Your task to perform on an android device: open chrome and create a bookmark for the current page Image 0: 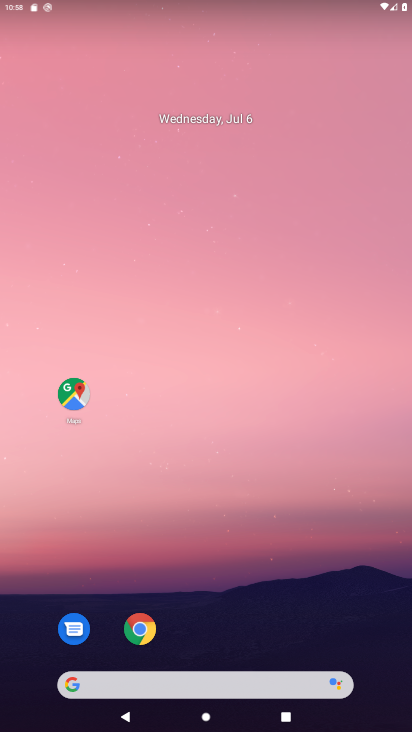
Step 0: click (138, 620)
Your task to perform on an android device: open chrome and create a bookmark for the current page Image 1: 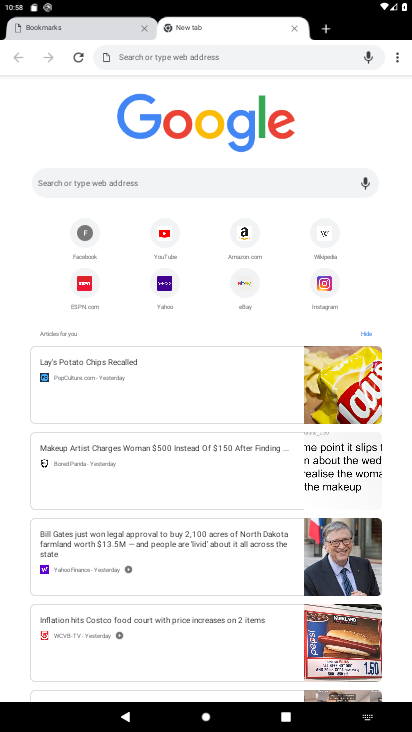
Step 1: click (397, 57)
Your task to perform on an android device: open chrome and create a bookmark for the current page Image 2: 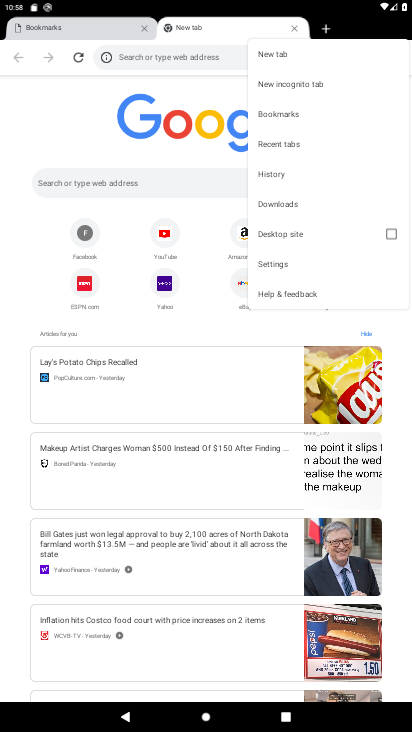
Step 2: click (44, 97)
Your task to perform on an android device: open chrome and create a bookmark for the current page Image 3: 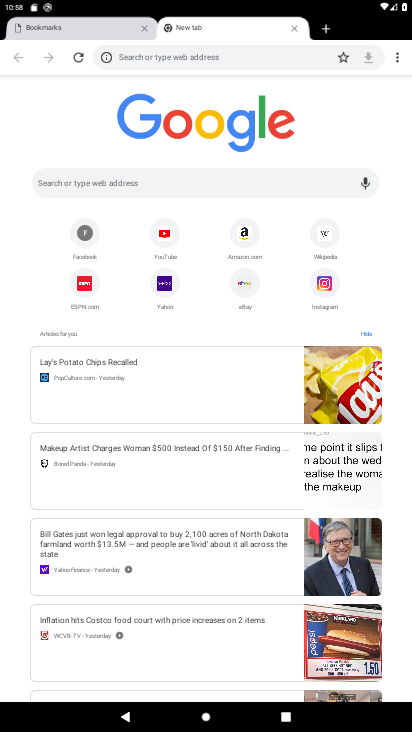
Step 3: click (342, 58)
Your task to perform on an android device: open chrome and create a bookmark for the current page Image 4: 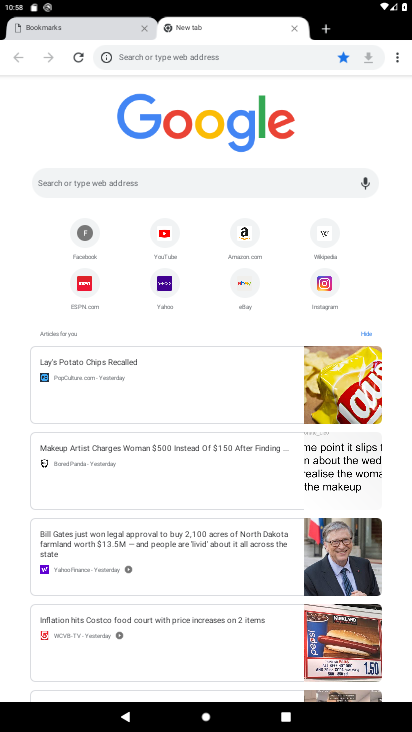
Step 4: task complete